Your task to perform on an android device: open a bookmark in the chrome app Image 0: 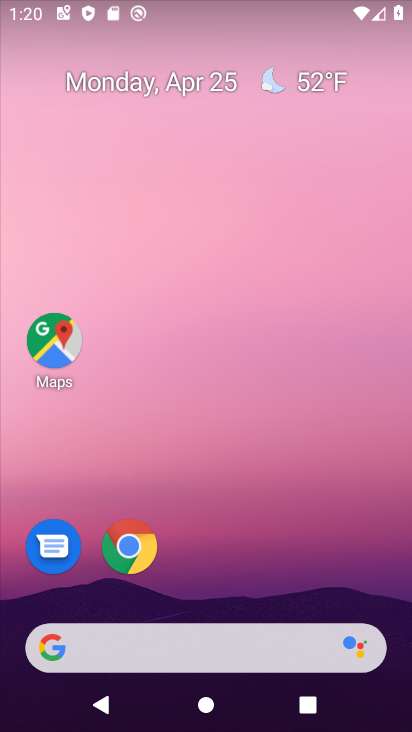
Step 0: click (133, 537)
Your task to perform on an android device: open a bookmark in the chrome app Image 1: 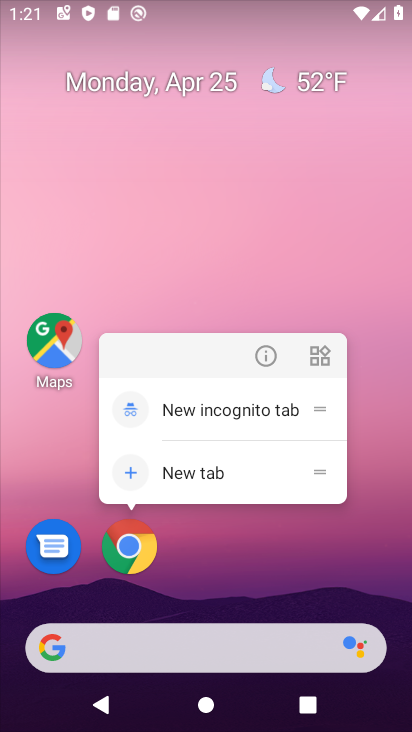
Step 1: click (141, 562)
Your task to perform on an android device: open a bookmark in the chrome app Image 2: 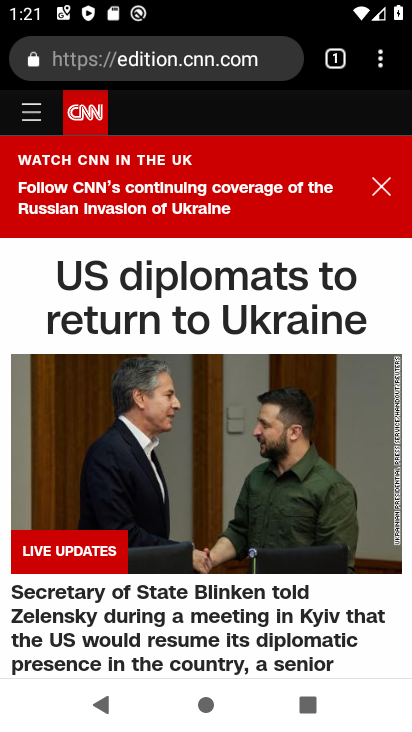
Step 2: task complete